Your task to perform on an android device: Do I have any events tomorrow? Image 0: 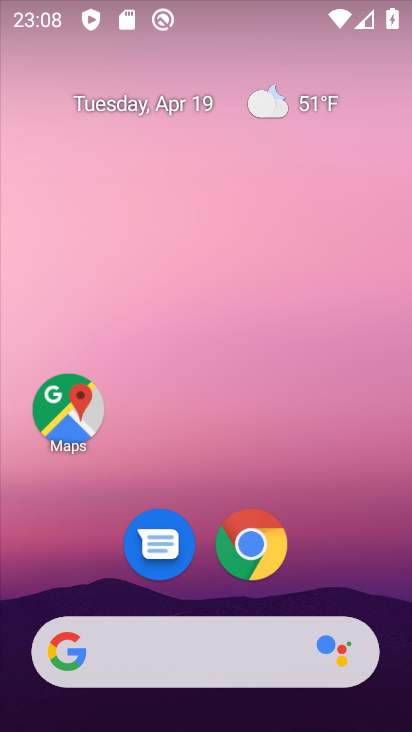
Step 0: drag from (318, 561) to (314, 113)
Your task to perform on an android device: Do I have any events tomorrow? Image 1: 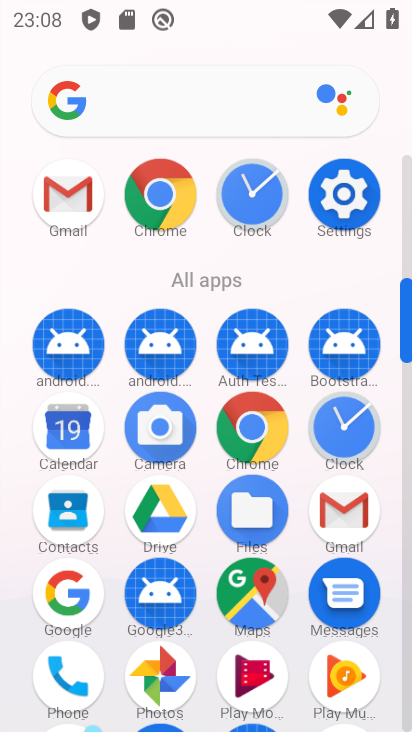
Step 1: click (52, 435)
Your task to perform on an android device: Do I have any events tomorrow? Image 2: 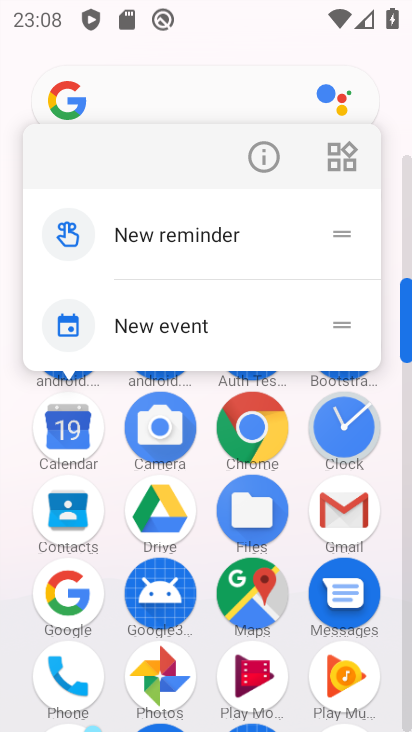
Step 2: click (48, 433)
Your task to perform on an android device: Do I have any events tomorrow? Image 3: 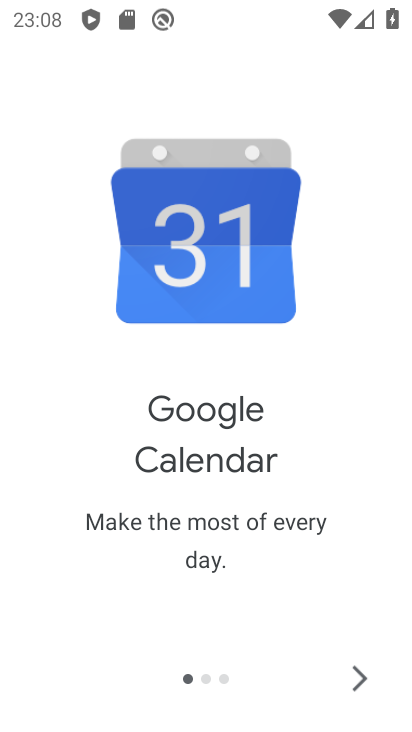
Step 3: click (357, 675)
Your task to perform on an android device: Do I have any events tomorrow? Image 4: 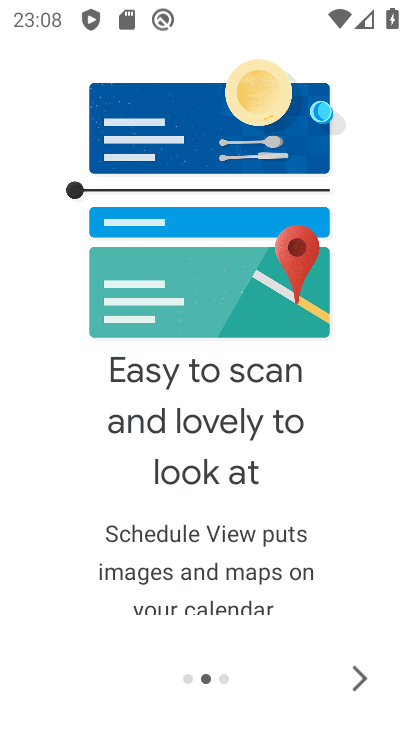
Step 4: click (357, 674)
Your task to perform on an android device: Do I have any events tomorrow? Image 5: 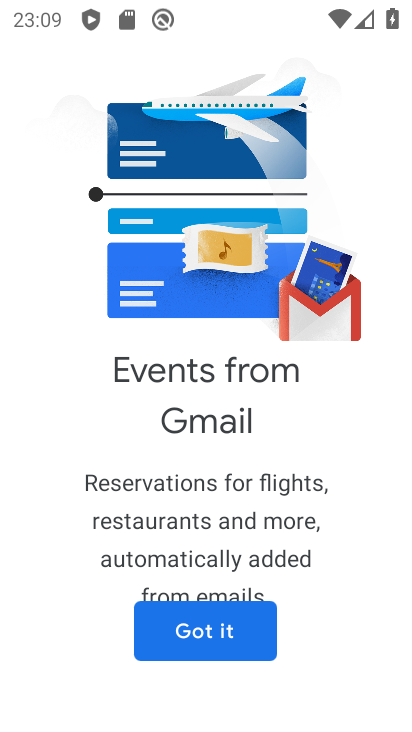
Step 5: click (258, 637)
Your task to perform on an android device: Do I have any events tomorrow? Image 6: 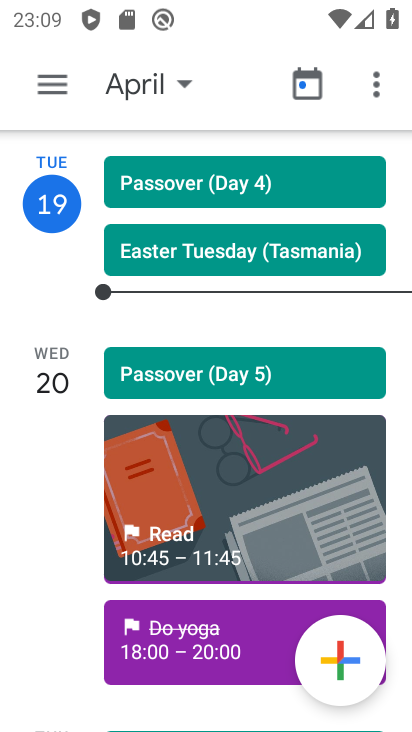
Step 6: click (166, 89)
Your task to perform on an android device: Do I have any events tomorrow? Image 7: 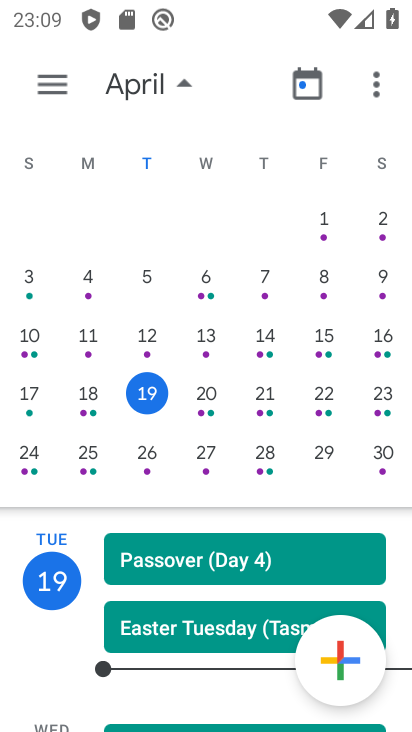
Step 7: click (205, 400)
Your task to perform on an android device: Do I have any events tomorrow? Image 8: 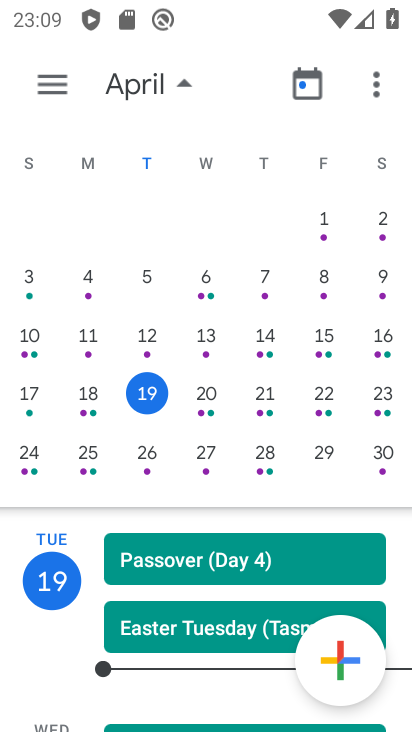
Step 8: click (217, 406)
Your task to perform on an android device: Do I have any events tomorrow? Image 9: 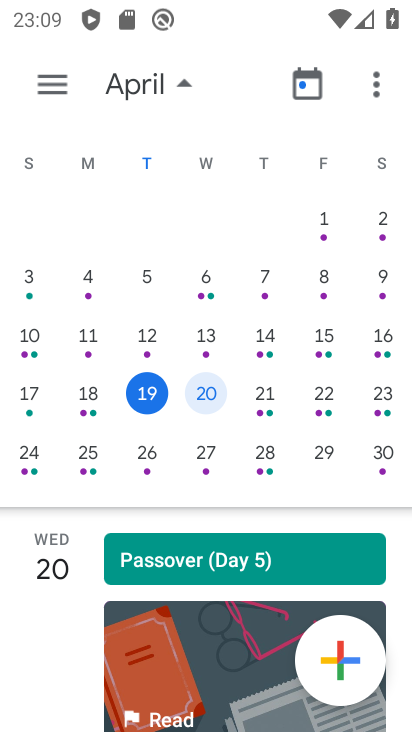
Step 9: task complete